Your task to perform on an android device: What's on my calendar today? Image 0: 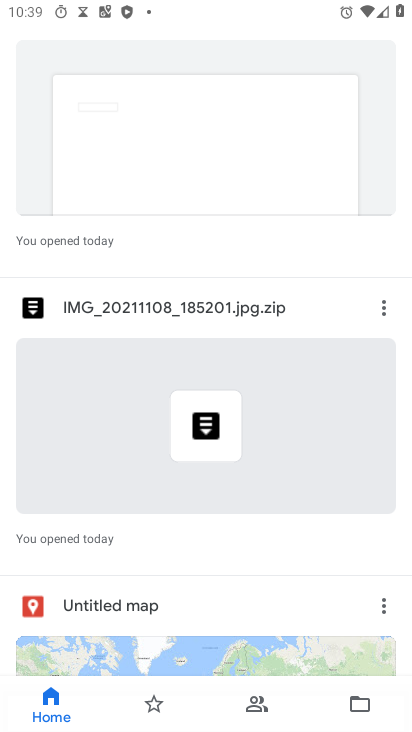
Step 0: press home button
Your task to perform on an android device: What's on my calendar today? Image 1: 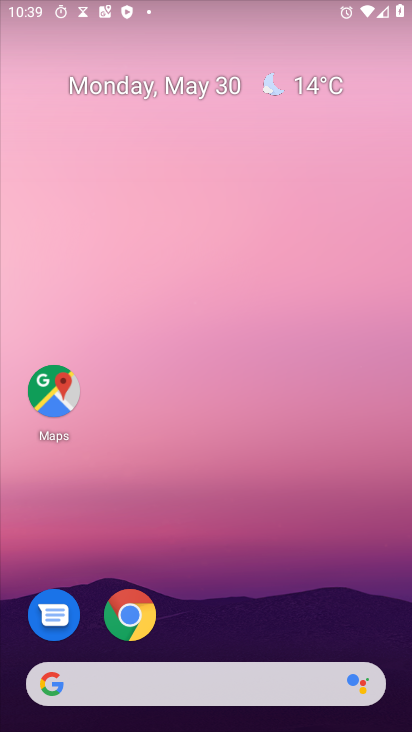
Step 1: drag from (256, 573) to (223, 89)
Your task to perform on an android device: What's on my calendar today? Image 2: 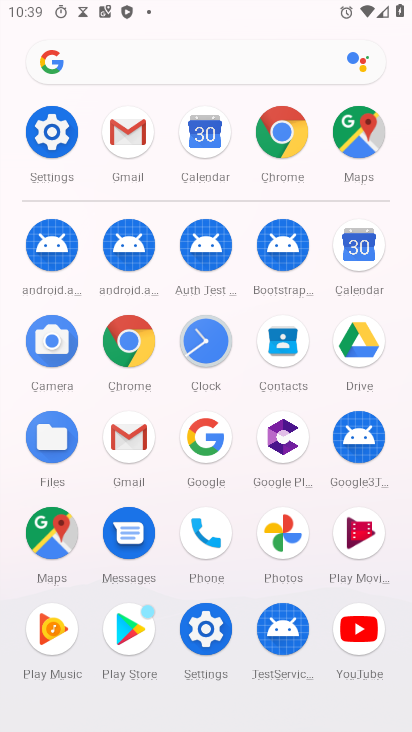
Step 2: click (213, 124)
Your task to perform on an android device: What's on my calendar today? Image 3: 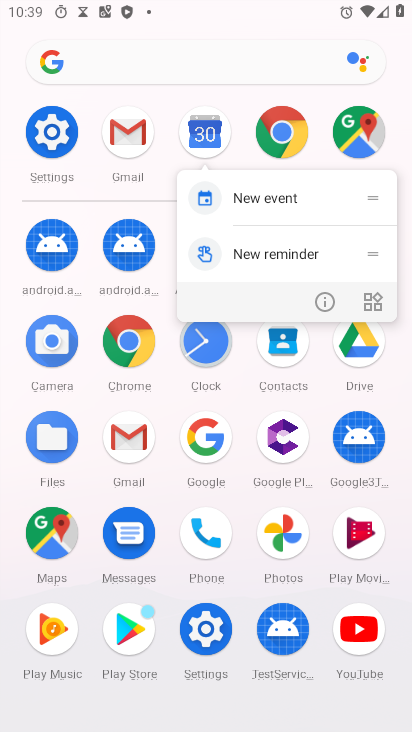
Step 3: click (213, 124)
Your task to perform on an android device: What's on my calendar today? Image 4: 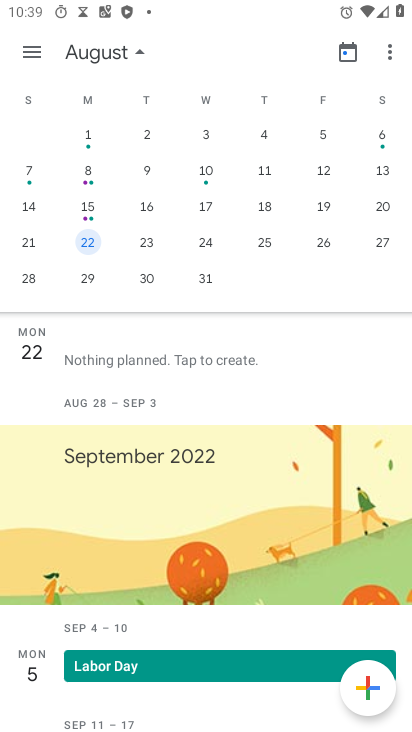
Step 4: task complete